Your task to perform on an android device: turn off translation in the chrome app Image 0: 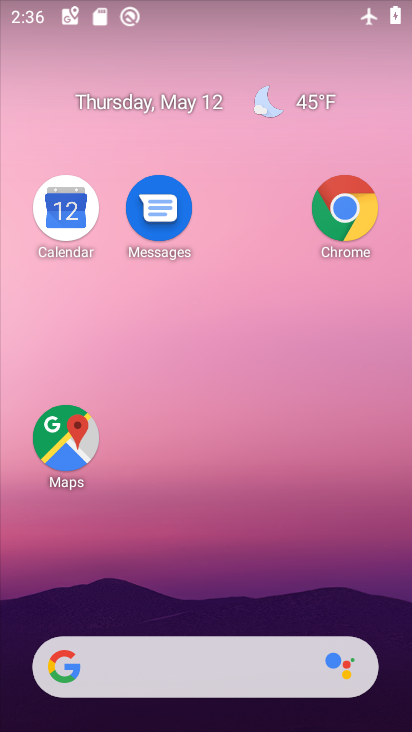
Step 0: click (255, 565)
Your task to perform on an android device: turn off translation in the chrome app Image 1: 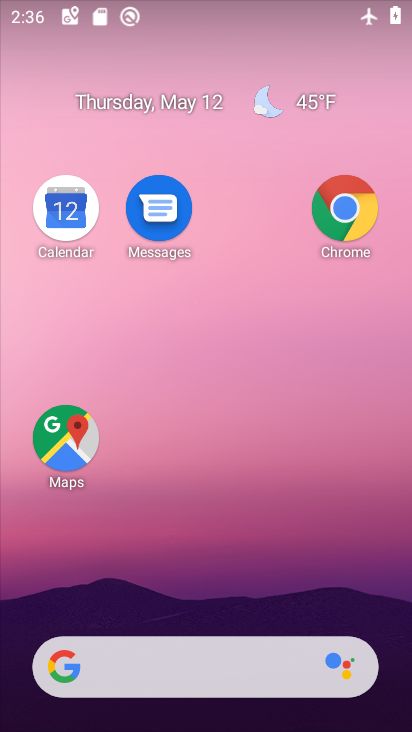
Step 1: drag from (241, 575) to (255, 108)
Your task to perform on an android device: turn off translation in the chrome app Image 2: 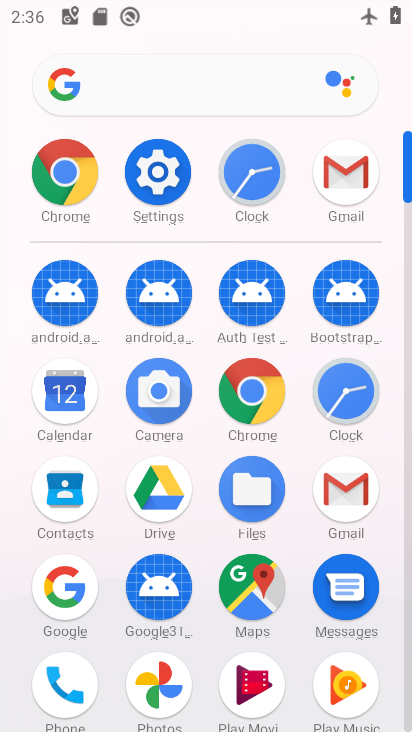
Step 2: click (256, 393)
Your task to perform on an android device: turn off translation in the chrome app Image 3: 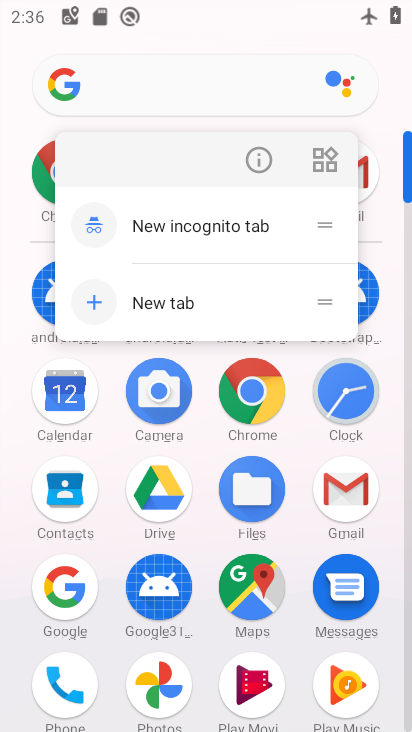
Step 3: click (254, 155)
Your task to perform on an android device: turn off translation in the chrome app Image 4: 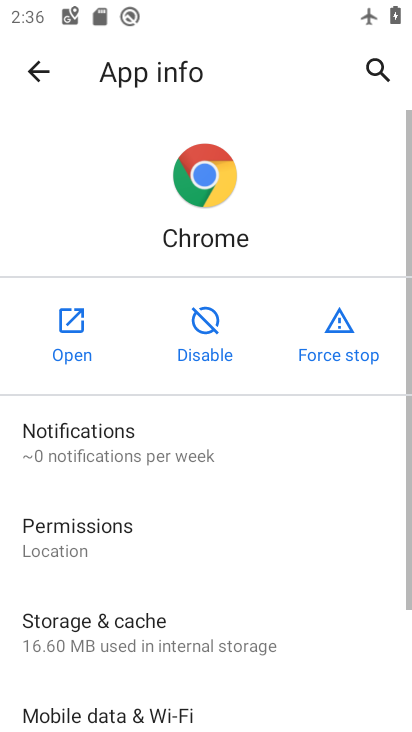
Step 4: click (77, 340)
Your task to perform on an android device: turn off translation in the chrome app Image 5: 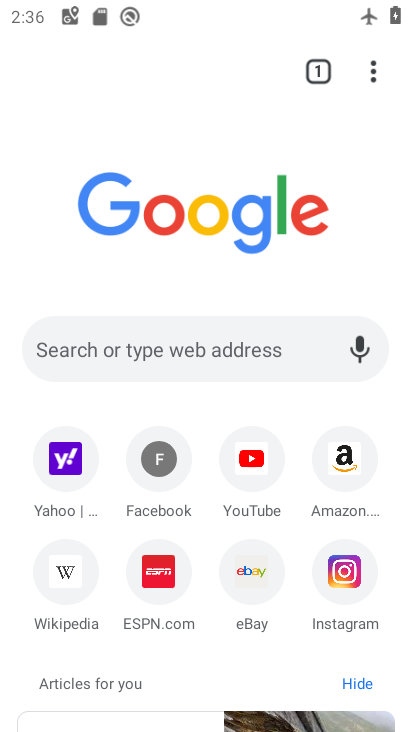
Step 5: drag from (367, 66) to (135, 594)
Your task to perform on an android device: turn off translation in the chrome app Image 6: 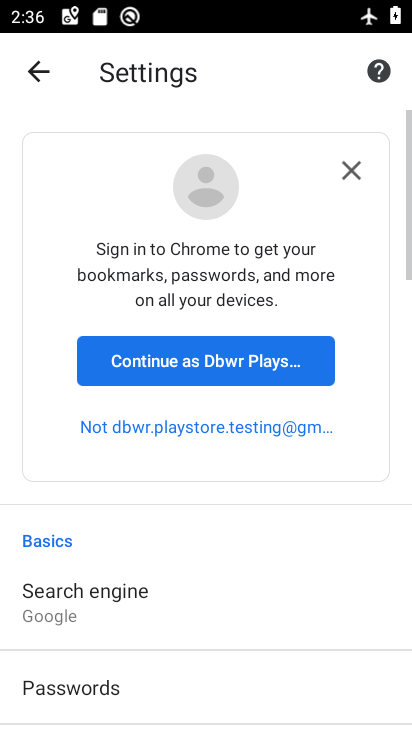
Step 6: drag from (202, 620) to (241, 147)
Your task to perform on an android device: turn off translation in the chrome app Image 7: 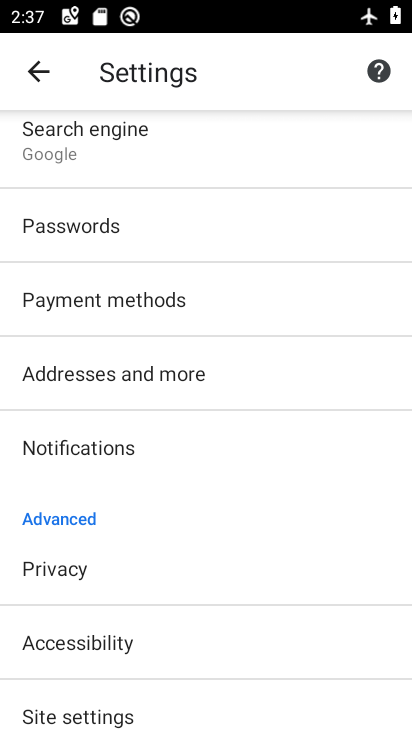
Step 7: drag from (224, 653) to (280, 182)
Your task to perform on an android device: turn off translation in the chrome app Image 8: 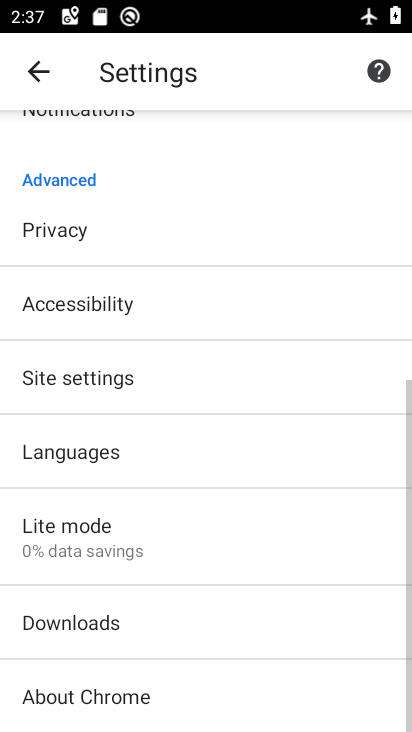
Step 8: drag from (151, 607) to (196, 234)
Your task to perform on an android device: turn off translation in the chrome app Image 9: 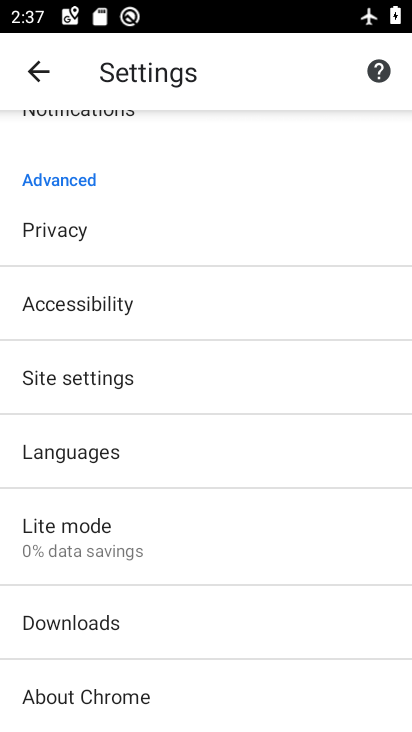
Step 9: click (115, 441)
Your task to perform on an android device: turn off translation in the chrome app Image 10: 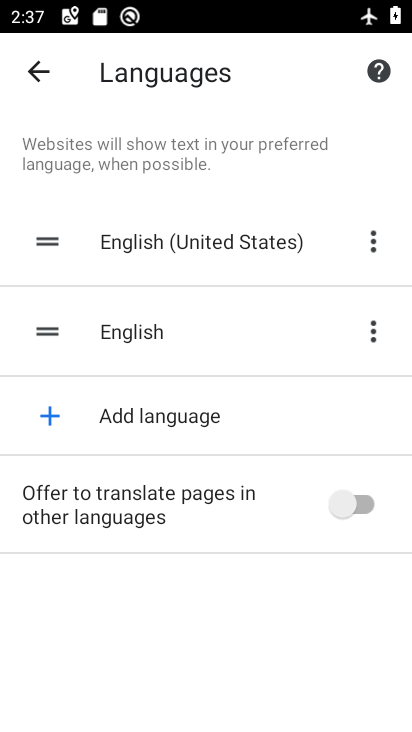
Step 10: task complete